Your task to perform on an android device: Open calendar and show me the fourth week of next month Image 0: 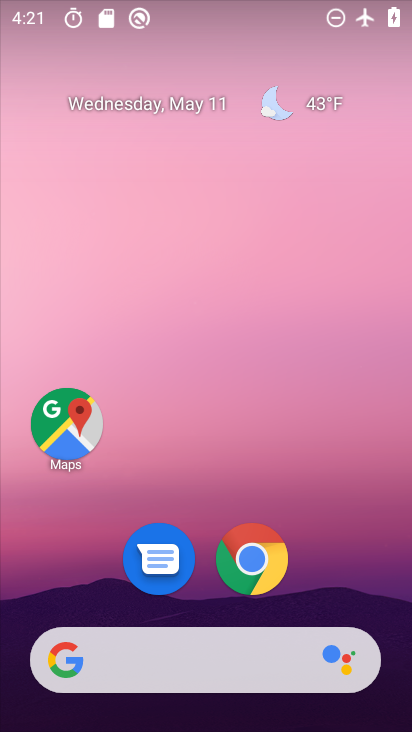
Step 0: click (166, 105)
Your task to perform on an android device: Open calendar and show me the fourth week of next month Image 1: 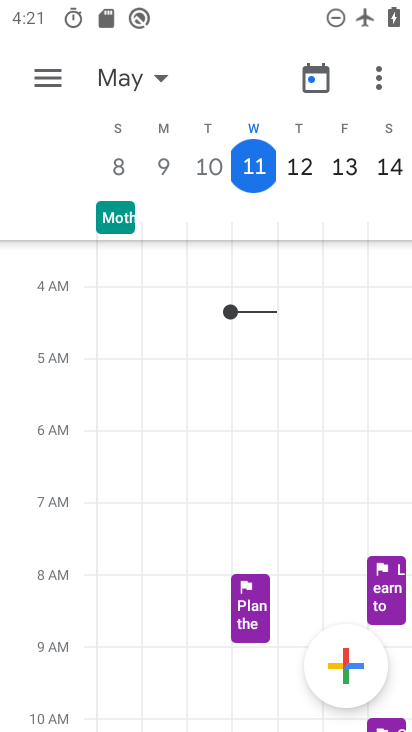
Step 1: click (158, 73)
Your task to perform on an android device: Open calendar and show me the fourth week of next month Image 2: 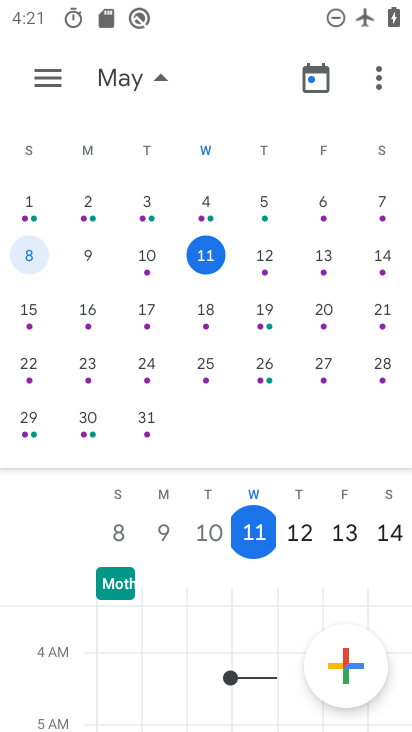
Step 2: drag from (358, 321) to (24, 385)
Your task to perform on an android device: Open calendar and show me the fourth week of next month Image 3: 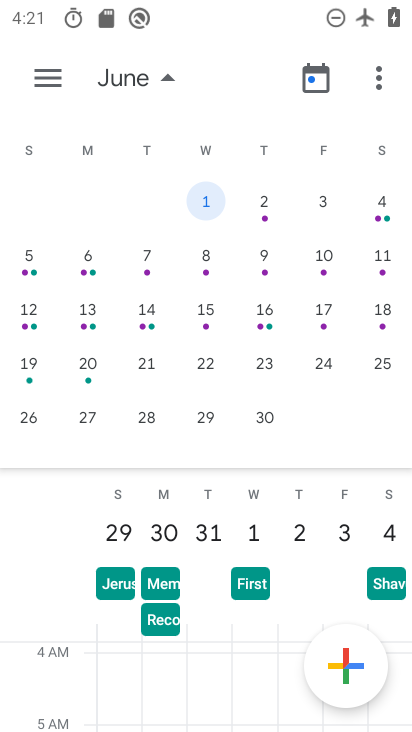
Step 3: click (40, 365)
Your task to perform on an android device: Open calendar and show me the fourth week of next month Image 4: 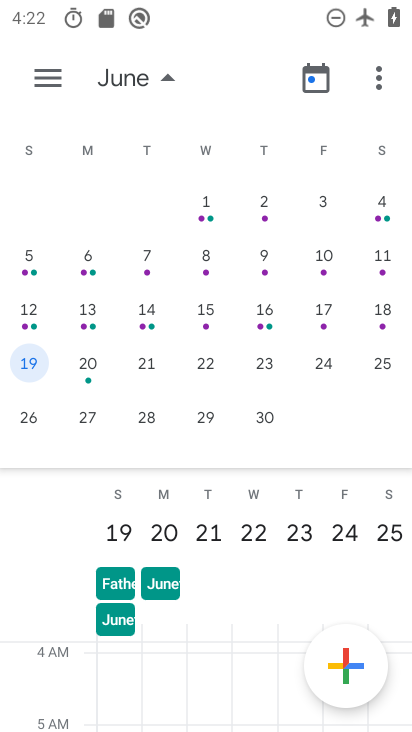
Step 4: task complete